Your task to perform on an android device: Check the news Image 0: 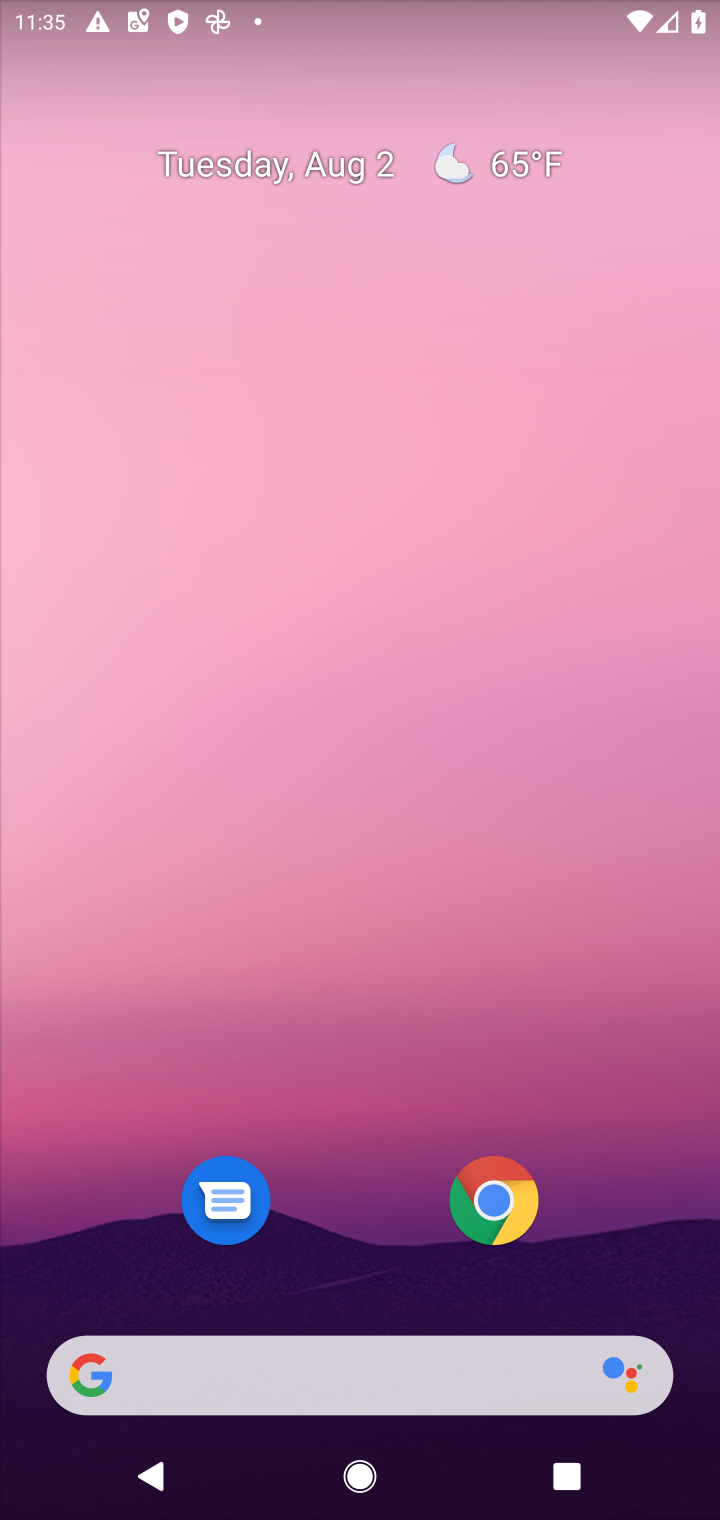
Step 0: drag from (12, 712) to (715, 707)
Your task to perform on an android device: Check the news Image 1: 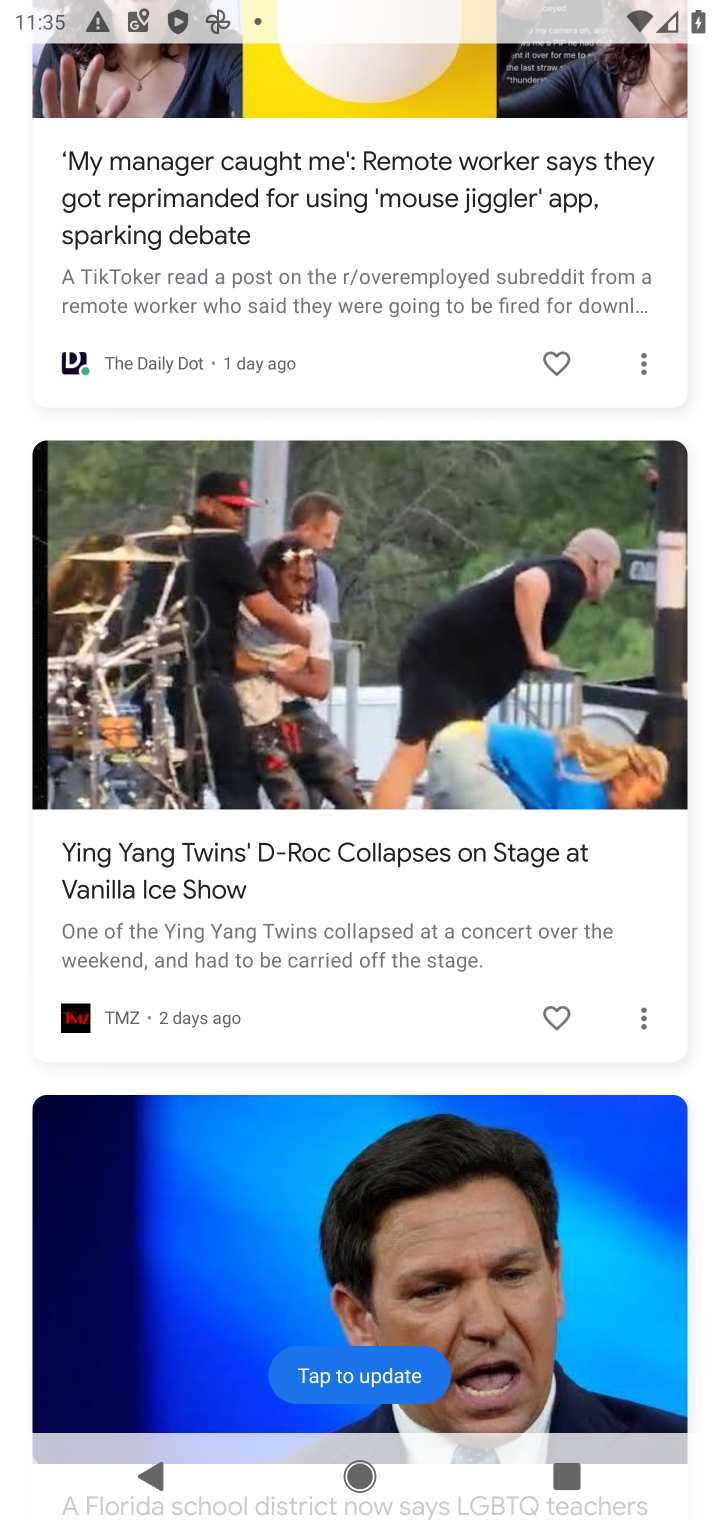
Step 1: task complete